Your task to perform on an android device: turn on notifications settings in the gmail app Image 0: 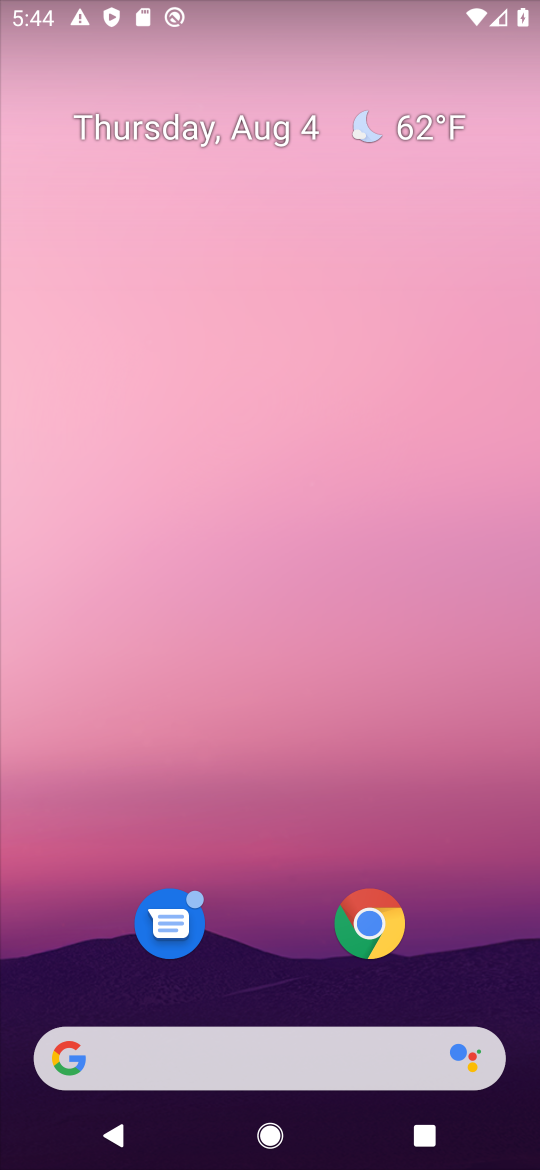
Step 0: drag from (487, 926) to (366, 342)
Your task to perform on an android device: turn on notifications settings in the gmail app Image 1: 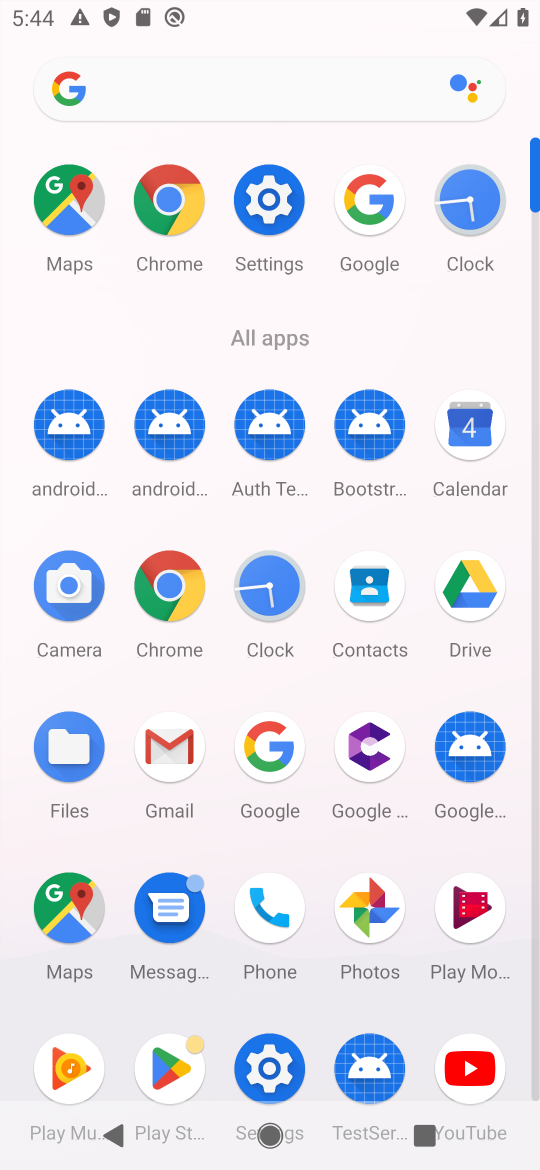
Step 1: click (180, 761)
Your task to perform on an android device: turn on notifications settings in the gmail app Image 2: 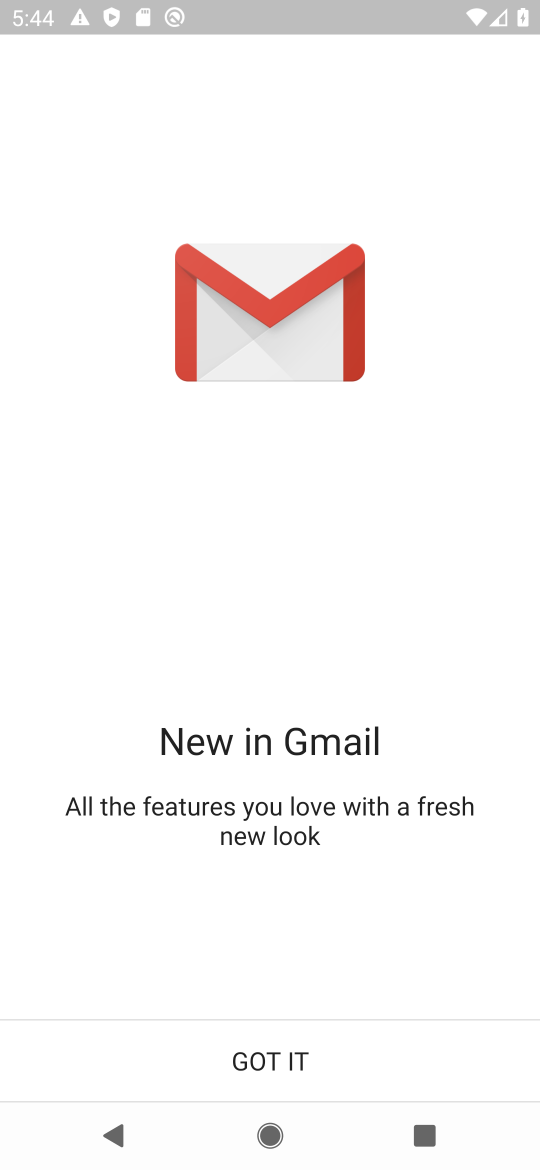
Step 2: click (301, 1048)
Your task to perform on an android device: turn on notifications settings in the gmail app Image 3: 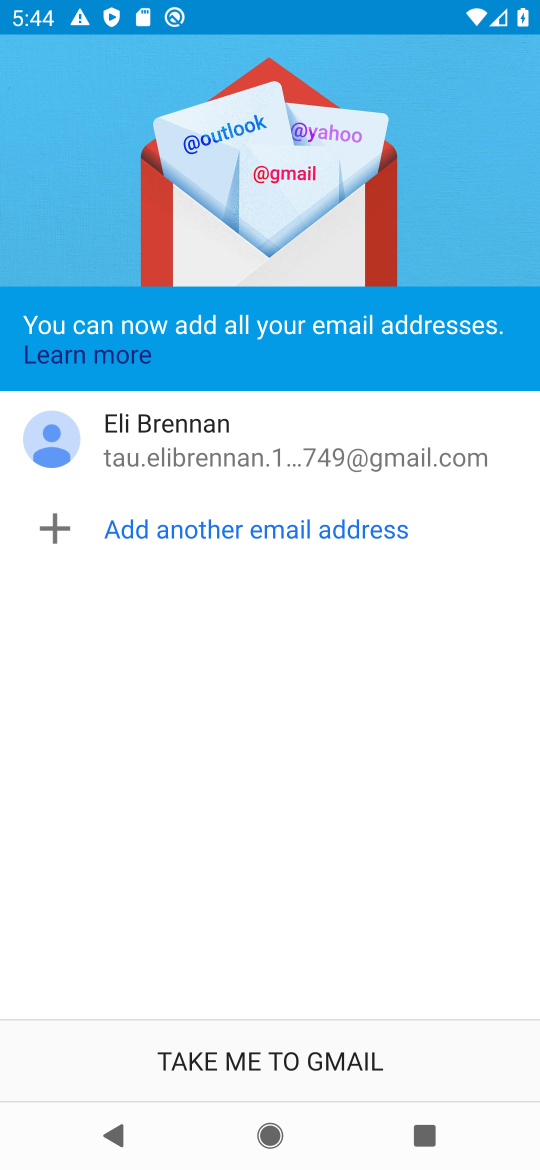
Step 3: click (301, 1048)
Your task to perform on an android device: turn on notifications settings in the gmail app Image 4: 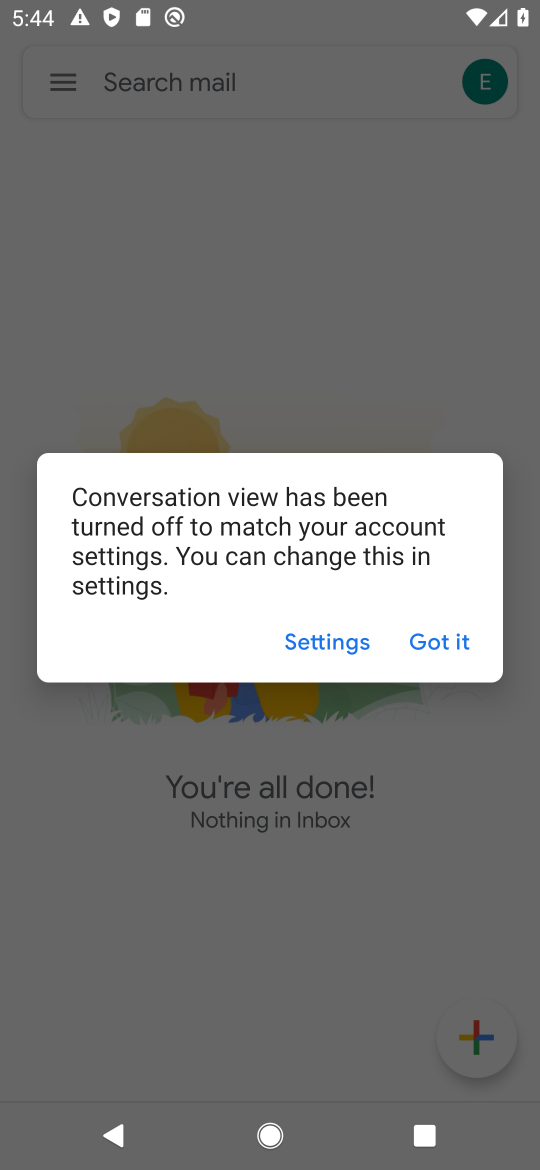
Step 4: click (453, 645)
Your task to perform on an android device: turn on notifications settings in the gmail app Image 5: 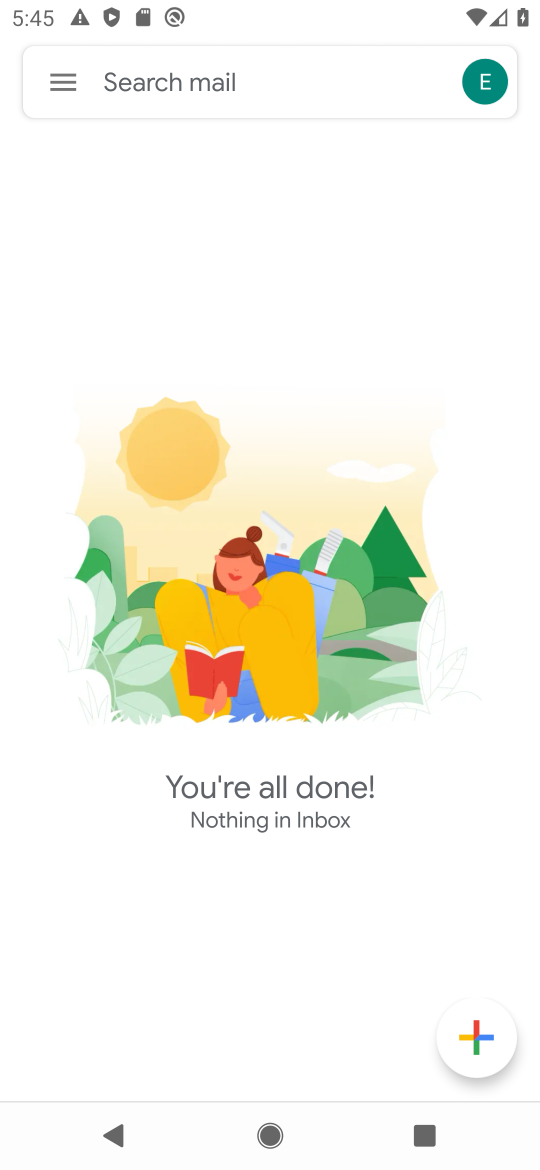
Step 5: click (68, 88)
Your task to perform on an android device: turn on notifications settings in the gmail app Image 6: 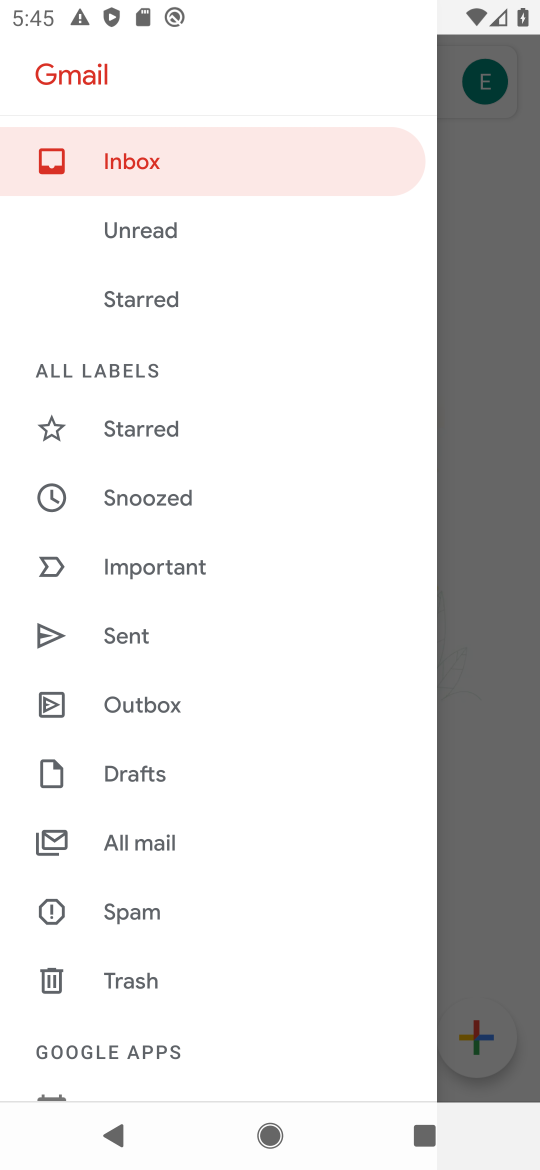
Step 6: drag from (291, 1031) to (186, 281)
Your task to perform on an android device: turn on notifications settings in the gmail app Image 7: 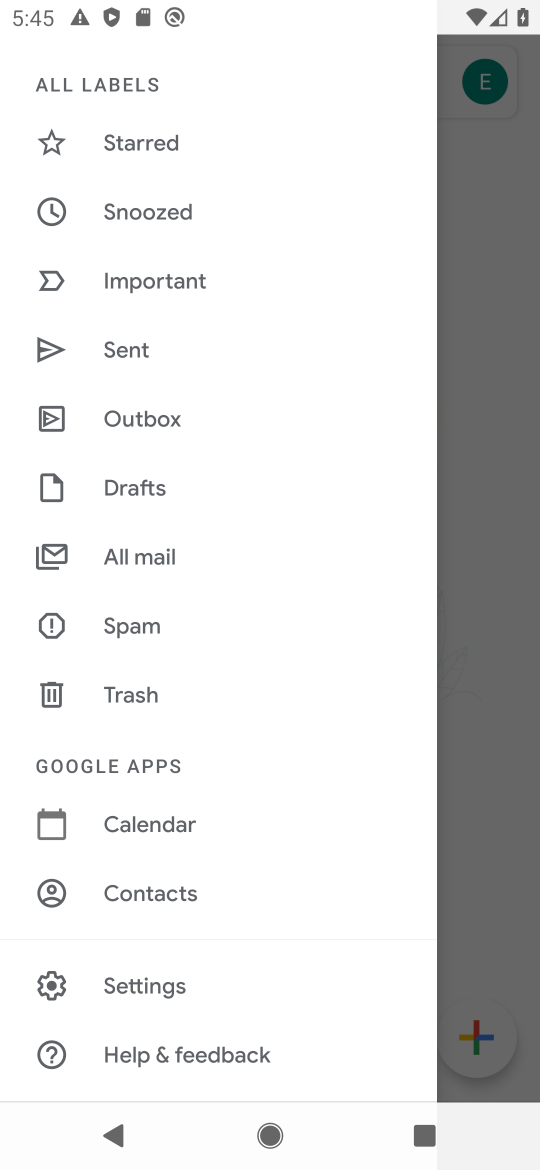
Step 7: click (146, 983)
Your task to perform on an android device: turn on notifications settings in the gmail app Image 8: 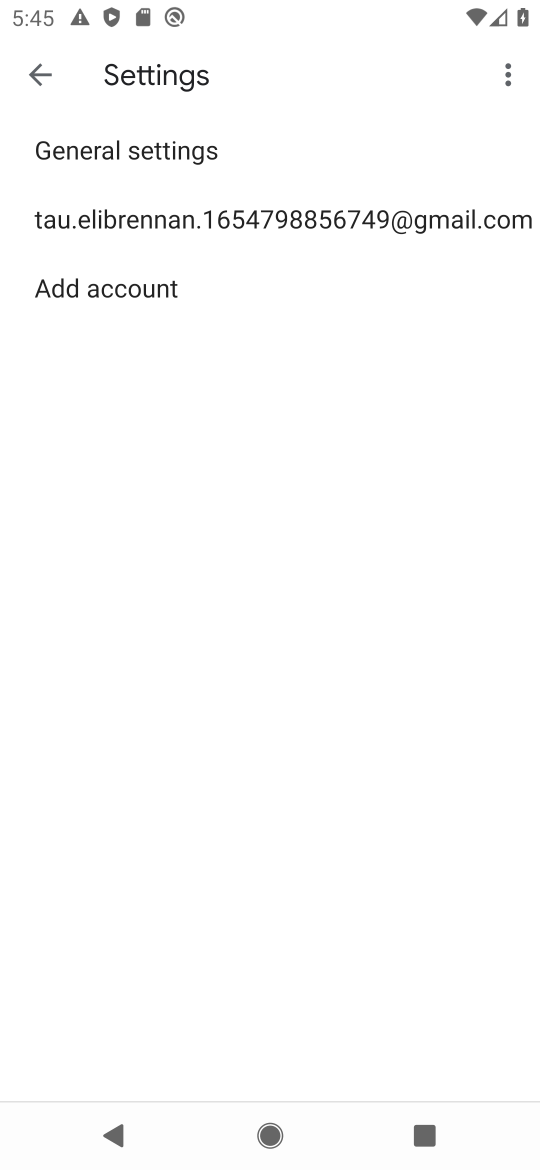
Step 8: click (141, 204)
Your task to perform on an android device: turn on notifications settings in the gmail app Image 9: 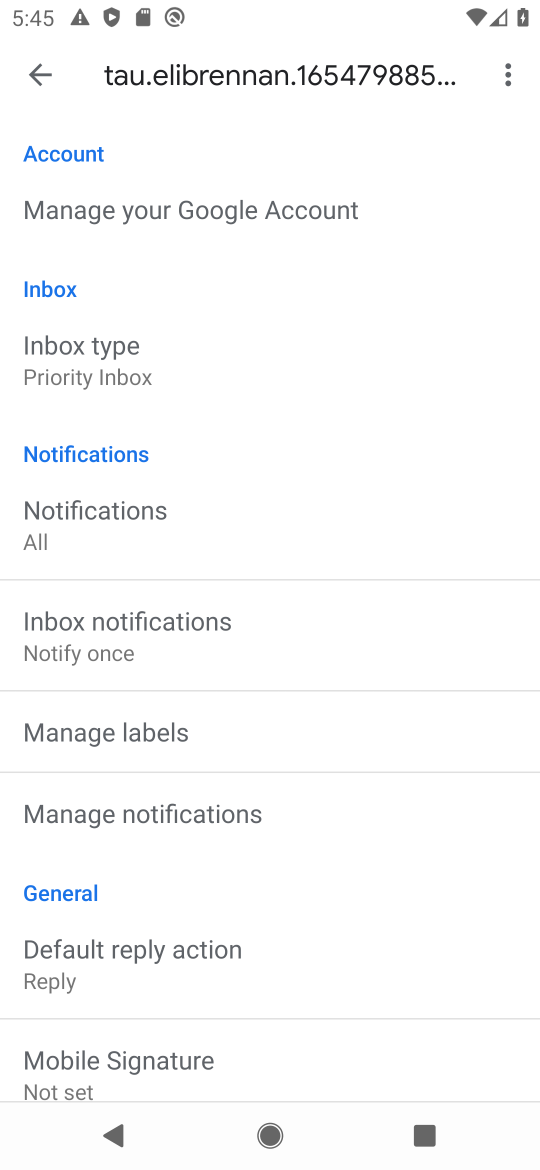
Step 9: click (316, 815)
Your task to perform on an android device: turn on notifications settings in the gmail app Image 10: 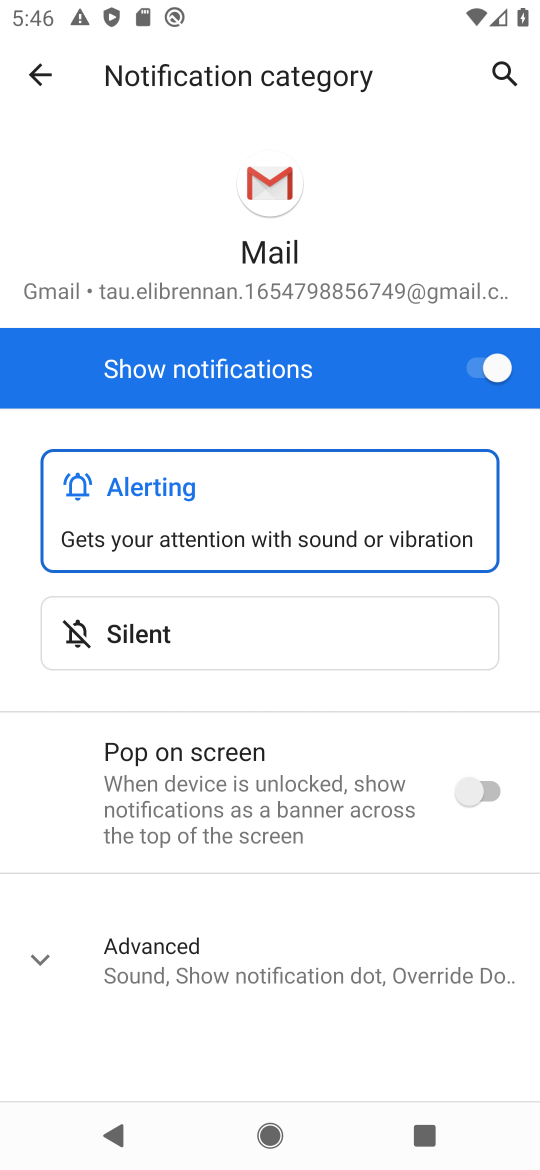
Step 10: task complete